Your task to perform on an android device: turn on javascript in the chrome app Image 0: 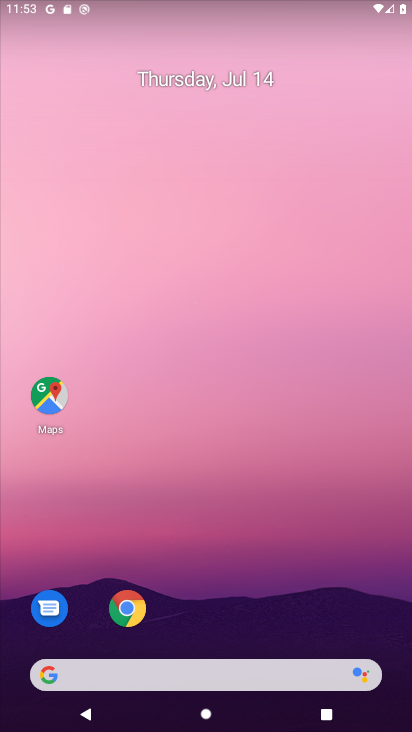
Step 0: drag from (241, 556) to (201, 255)
Your task to perform on an android device: turn on javascript in the chrome app Image 1: 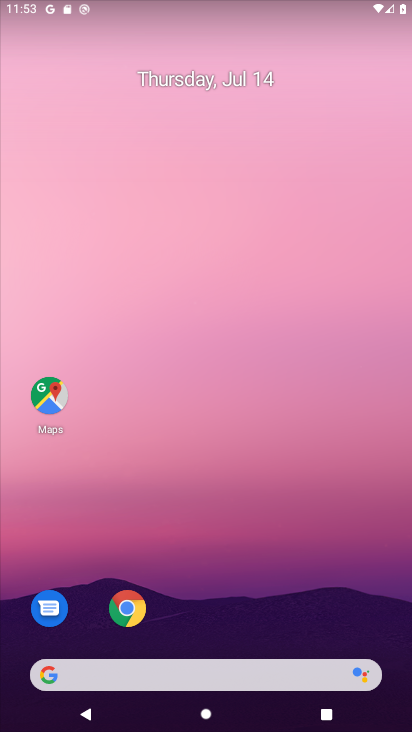
Step 1: click (130, 608)
Your task to perform on an android device: turn on javascript in the chrome app Image 2: 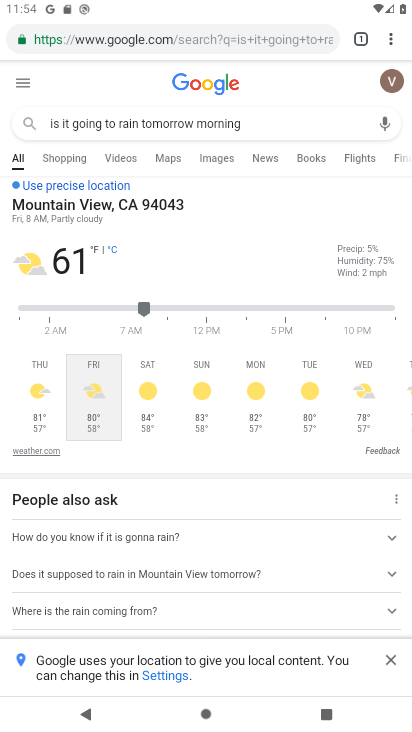
Step 2: click (393, 39)
Your task to perform on an android device: turn on javascript in the chrome app Image 3: 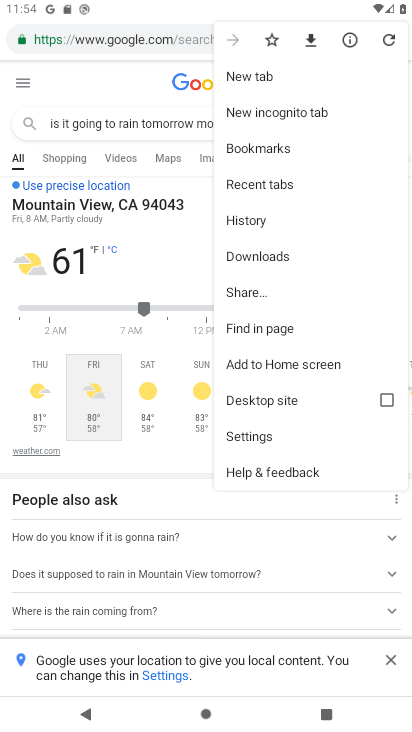
Step 3: click (246, 433)
Your task to perform on an android device: turn on javascript in the chrome app Image 4: 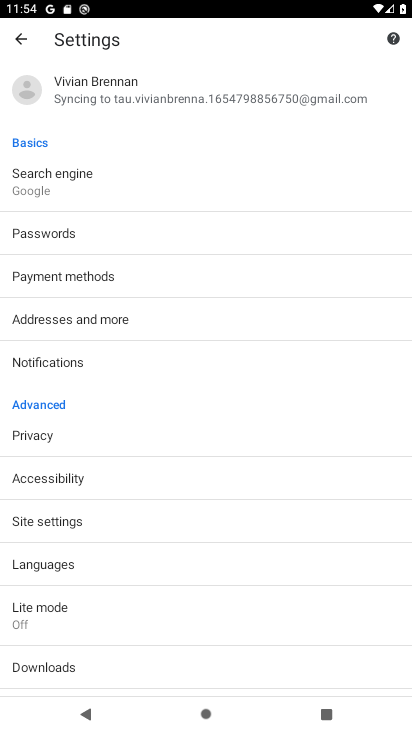
Step 4: click (57, 520)
Your task to perform on an android device: turn on javascript in the chrome app Image 5: 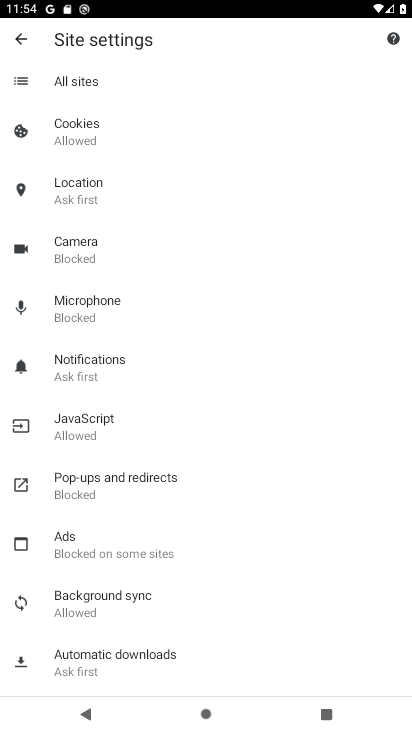
Step 5: click (77, 419)
Your task to perform on an android device: turn on javascript in the chrome app Image 6: 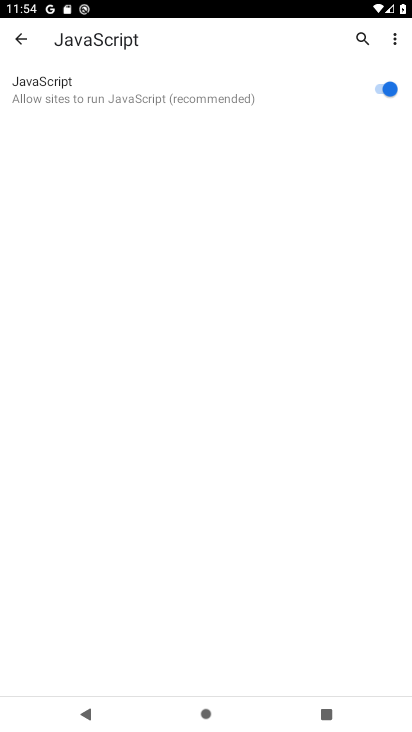
Step 6: task complete